Your task to perform on an android device: toggle show notifications on the lock screen Image 0: 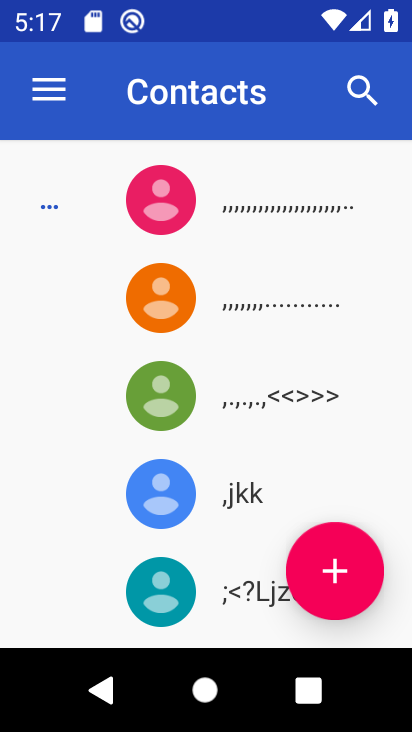
Step 0: press home button
Your task to perform on an android device: toggle show notifications on the lock screen Image 1: 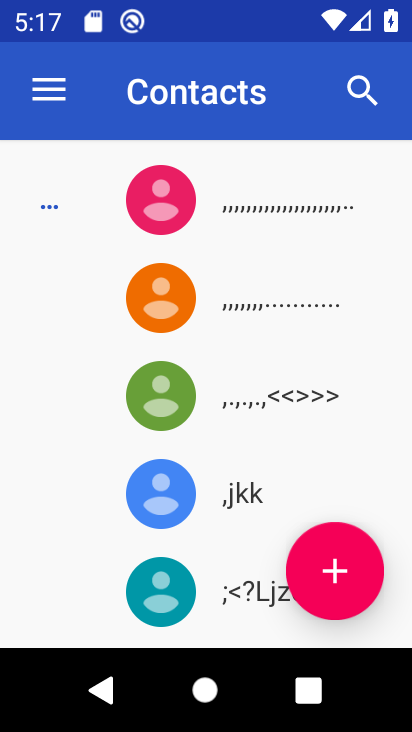
Step 1: press home button
Your task to perform on an android device: toggle show notifications on the lock screen Image 2: 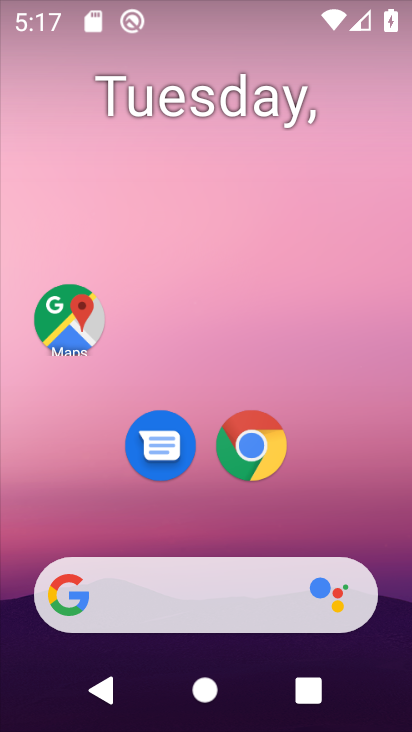
Step 2: drag from (247, 563) to (324, 151)
Your task to perform on an android device: toggle show notifications on the lock screen Image 3: 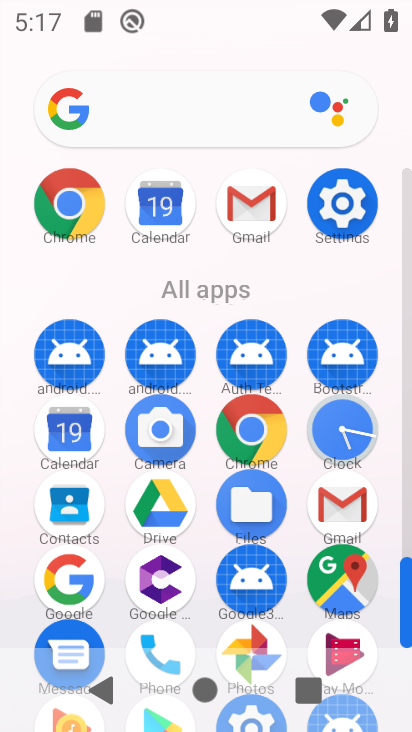
Step 3: click (345, 209)
Your task to perform on an android device: toggle show notifications on the lock screen Image 4: 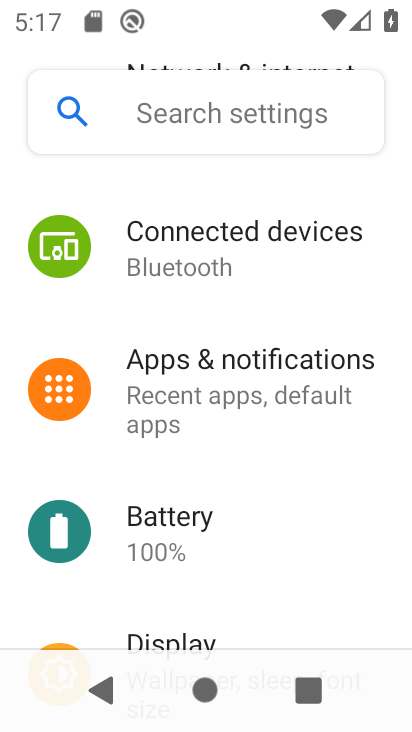
Step 4: drag from (261, 413) to (263, 175)
Your task to perform on an android device: toggle show notifications on the lock screen Image 5: 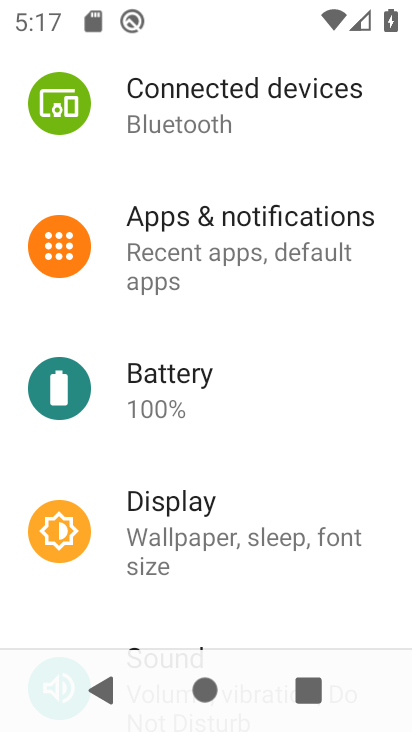
Step 5: click (224, 267)
Your task to perform on an android device: toggle show notifications on the lock screen Image 6: 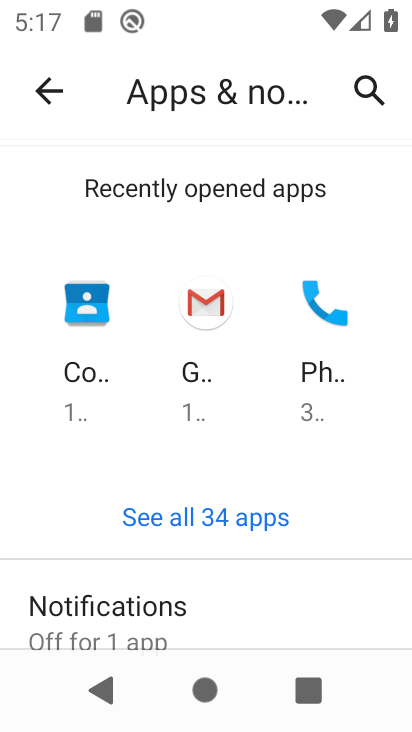
Step 6: drag from (217, 444) to (245, 200)
Your task to perform on an android device: toggle show notifications on the lock screen Image 7: 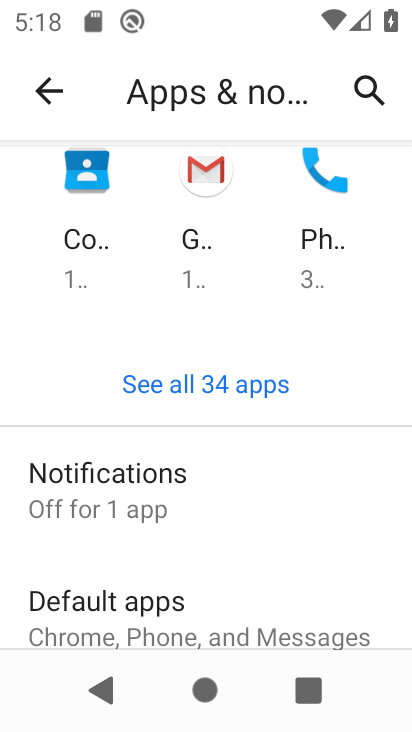
Step 7: drag from (187, 544) to (231, 259)
Your task to perform on an android device: toggle show notifications on the lock screen Image 8: 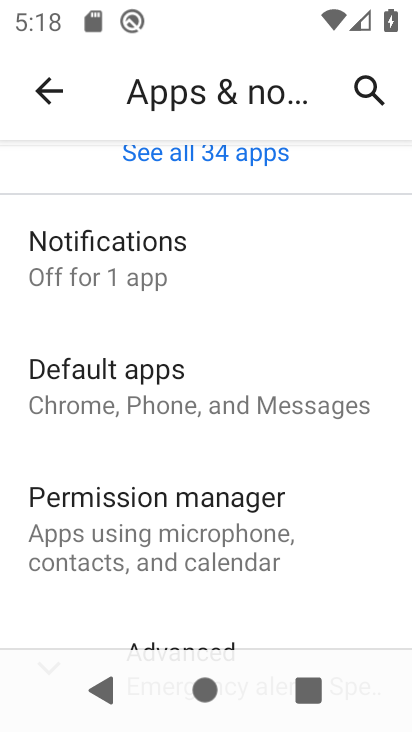
Step 8: click (194, 273)
Your task to perform on an android device: toggle show notifications on the lock screen Image 9: 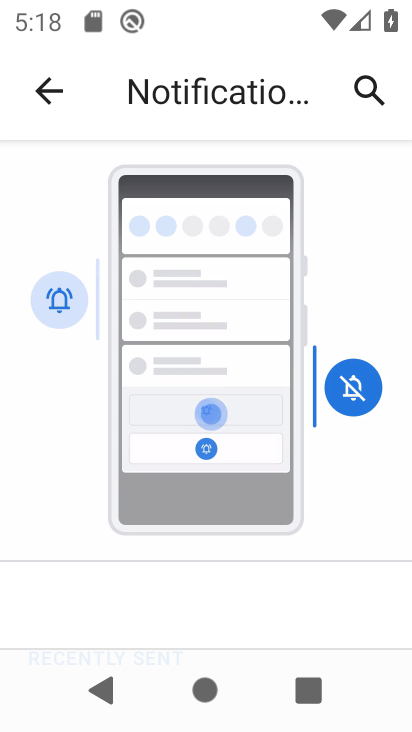
Step 9: drag from (178, 293) to (156, 144)
Your task to perform on an android device: toggle show notifications on the lock screen Image 10: 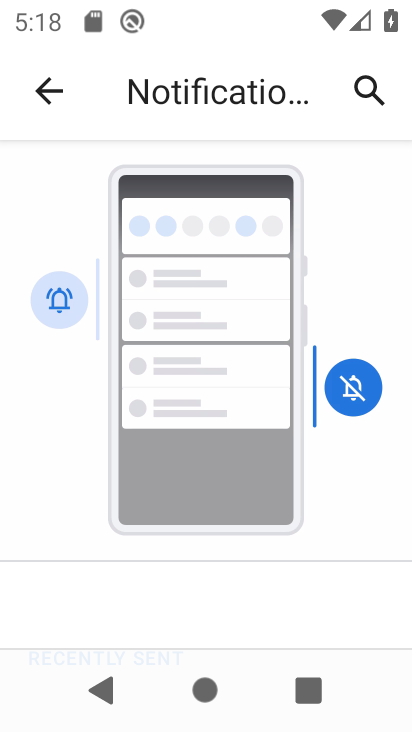
Step 10: drag from (206, 465) to (210, 10)
Your task to perform on an android device: toggle show notifications on the lock screen Image 11: 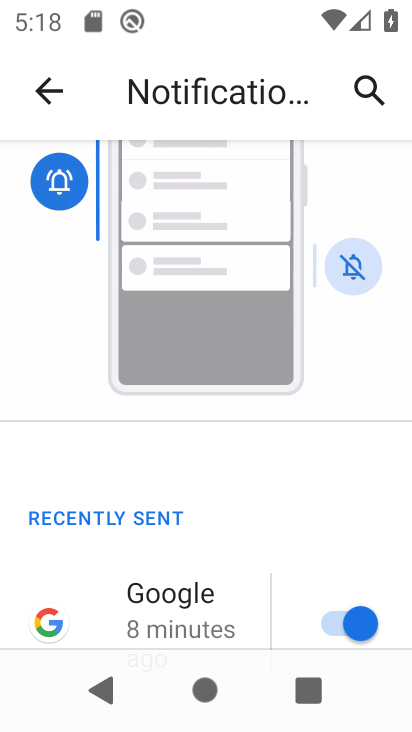
Step 11: drag from (135, 553) to (144, 14)
Your task to perform on an android device: toggle show notifications on the lock screen Image 12: 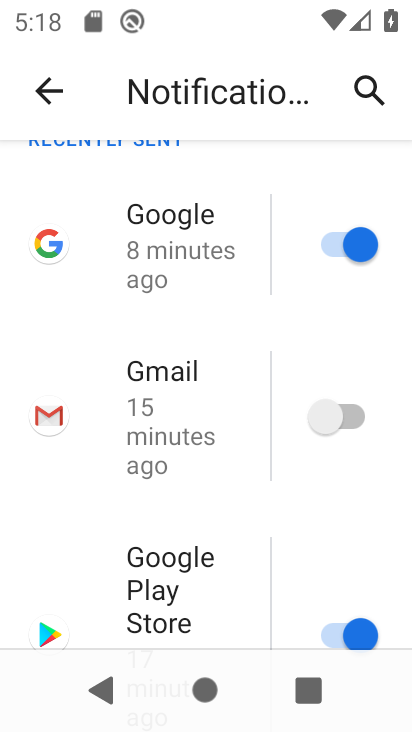
Step 12: drag from (153, 453) to (153, 104)
Your task to perform on an android device: toggle show notifications on the lock screen Image 13: 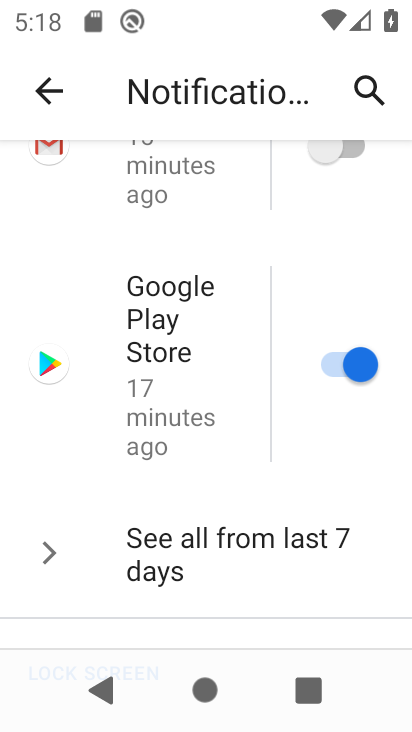
Step 13: drag from (163, 485) to (153, 112)
Your task to perform on an android device: toggle show notifications on the lock screen Image 14: 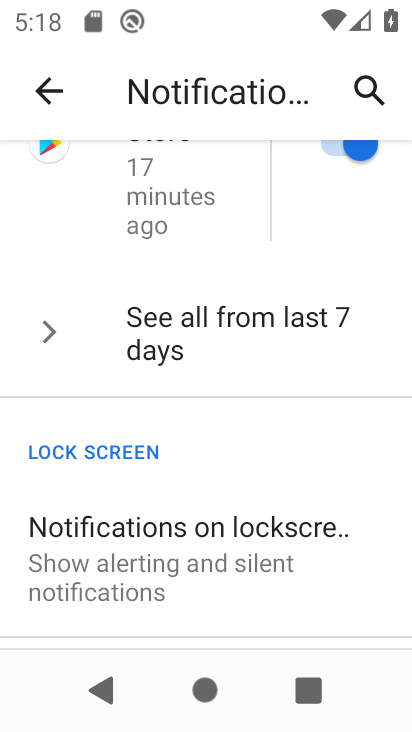
Step 14: click (174, 558)
Your task to perform on an android device: toggle show notifications on the lock screen Image 15: 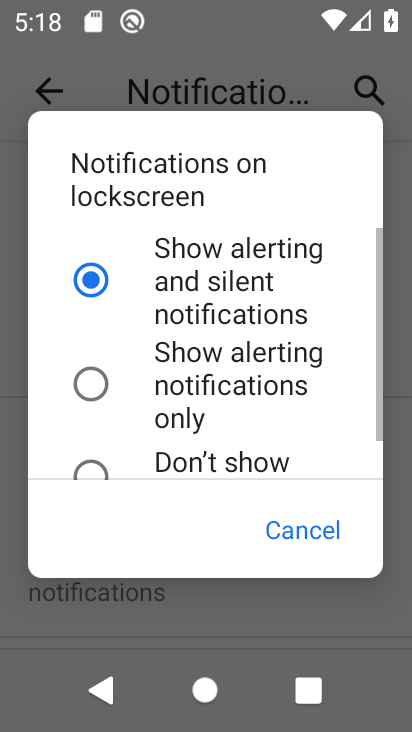
Step 15: click (134, 466)
Your task to perform on an android device: toggle show notifications on the lock screen Image 16: 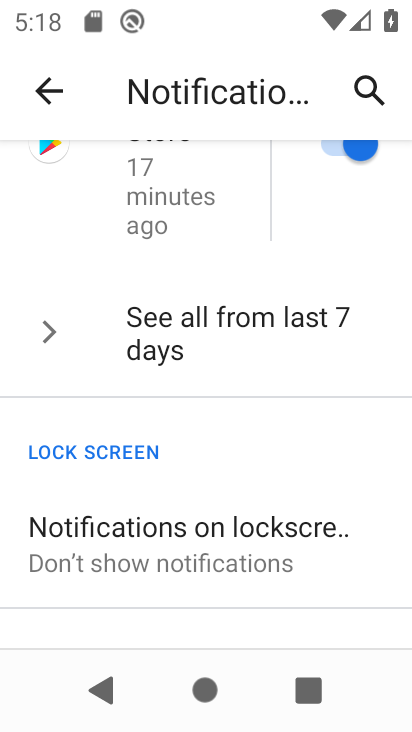
Step 16: task complete